Your task to perform on an android device: Open privacy settings Image 0: 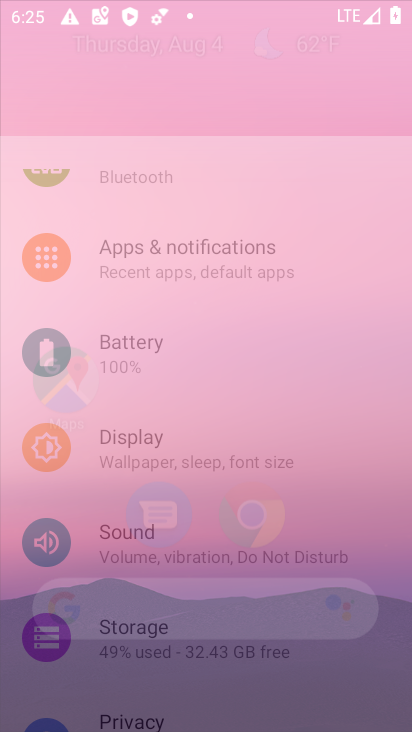
Step 0: press home button
Your task to perform on an android device: Open privacy settings Image 1: 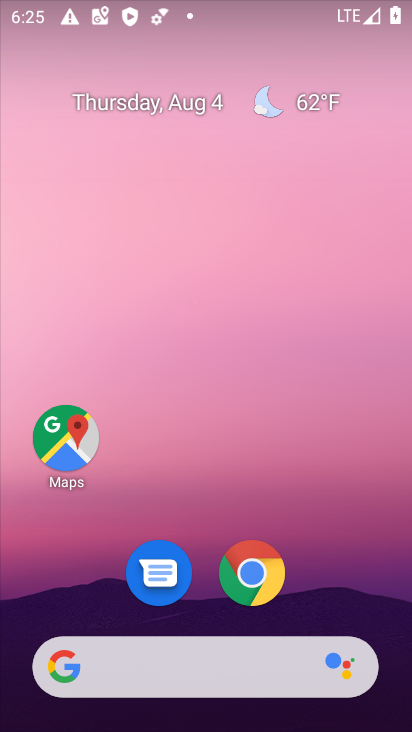
Step 1: drag from (225, 617) to (233, 192)
Your task to perform on an android device: Open privacy settings Image 2: 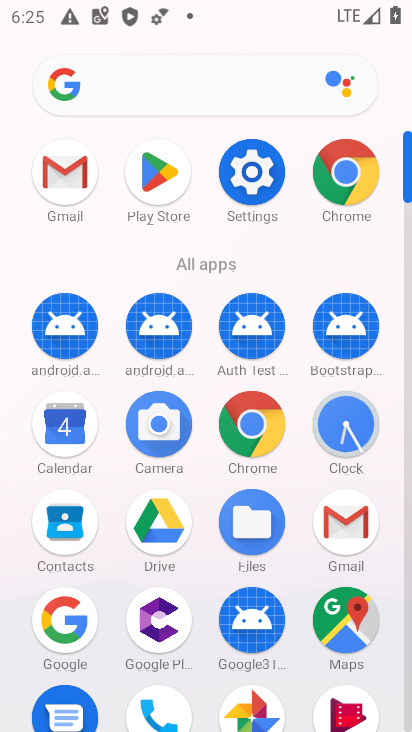
Step 2: click (262, 156)
Your task to perform on an android device: Open privacy settings Image 3: 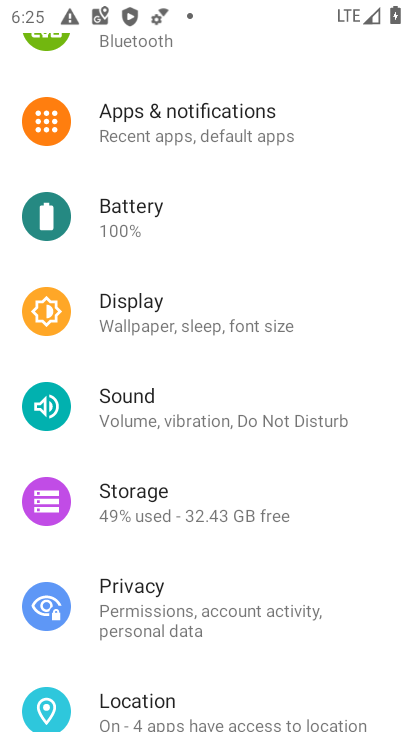
Step 3: click (120, 599)
Your task to perform on an android device: Open privacy settings Image 4: 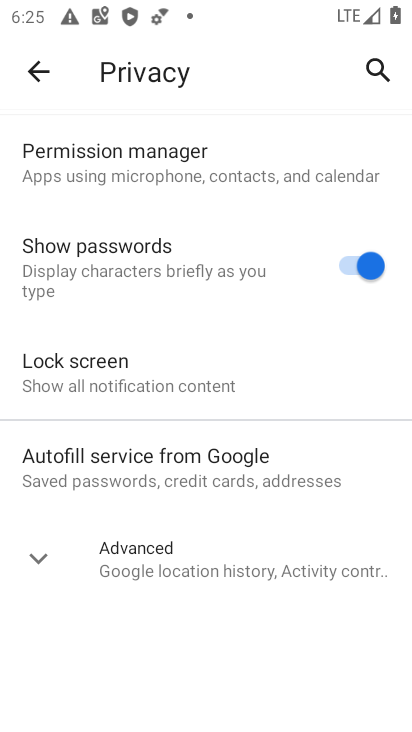
Step 4: task complete